Your task to perform on an android device: Go to Wikipedia Image 0: 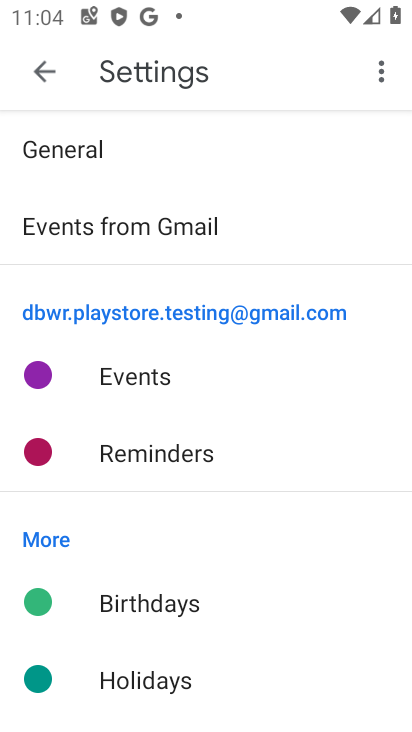
Step 0: press home button
Your task to perform on an android device: Go to Wikipedia Image 1: 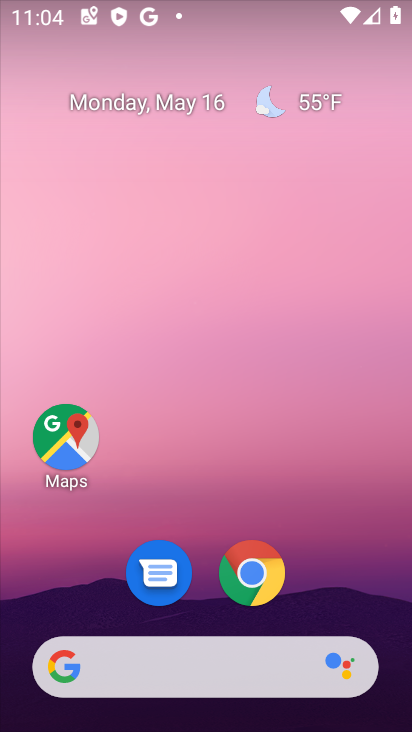
Step 1: click (254, 568)
Your task to perform on an android device: Go to Wikipedia Image 2: 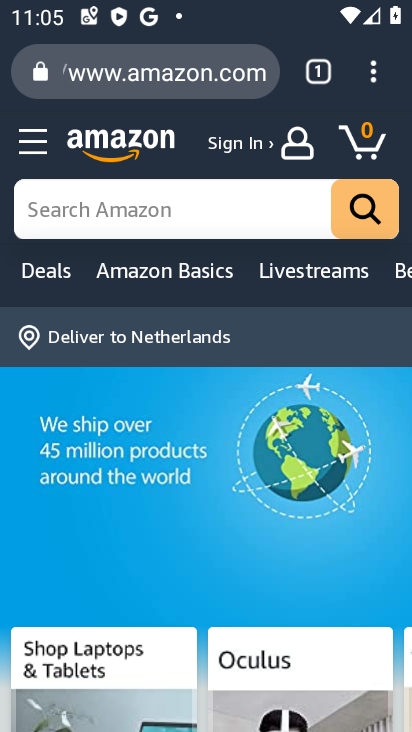
Step 2: click (321, 74)
Your task to perform on an android device: Go to Wikipedia Image 3: 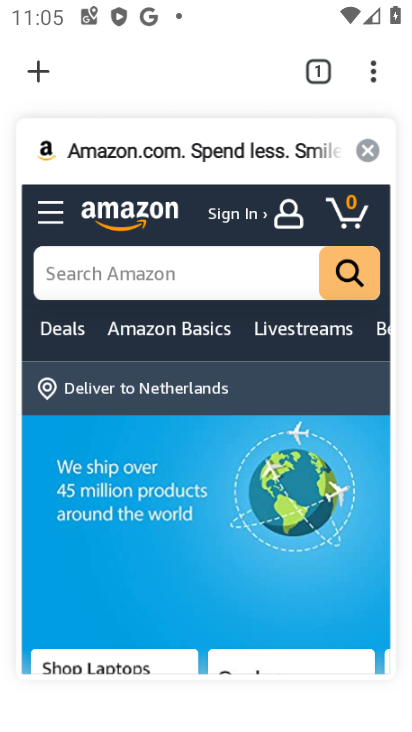
Step 3: click (365, 152)
Your task to perform on an android device: Go to Wikipedia Image 4: 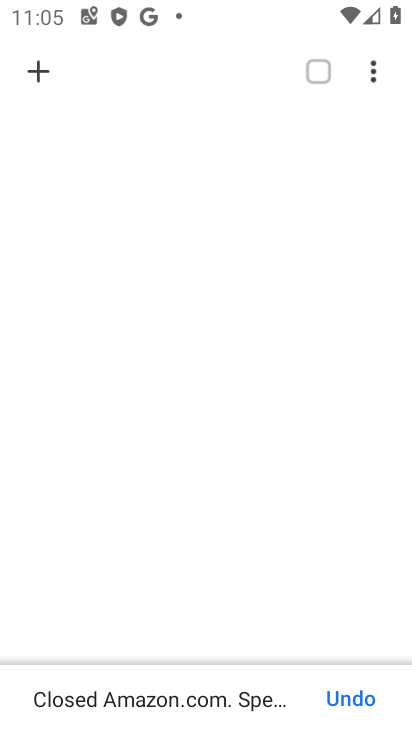
Step 4: click (36, 74)
Your task to perform on an android device: Go to Wikipedia Image 5: 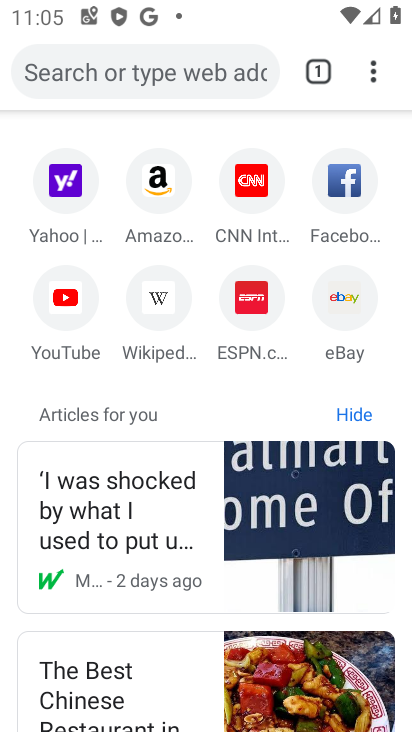
Step 5: click (158, 301)
Your task to perform on an android device: Go to Wikipedia Image 6: 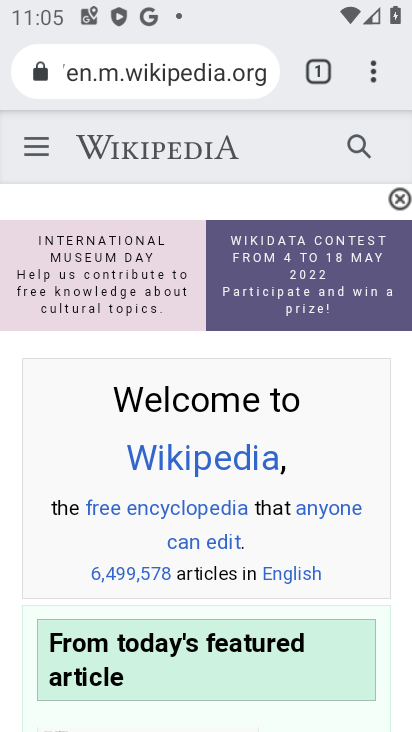
Step 6: task complete